Your task to perform on an android device: delete a single message in the gmail app Image 0: 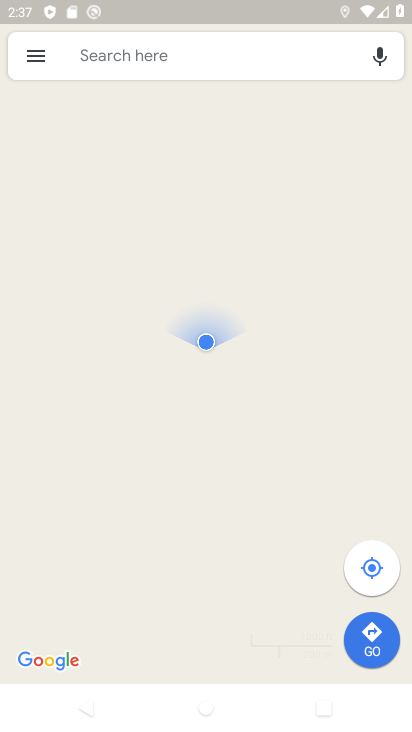
Step 0: press home button
Your task to perform on an android device: delete a single message in the gmail app Image 1: 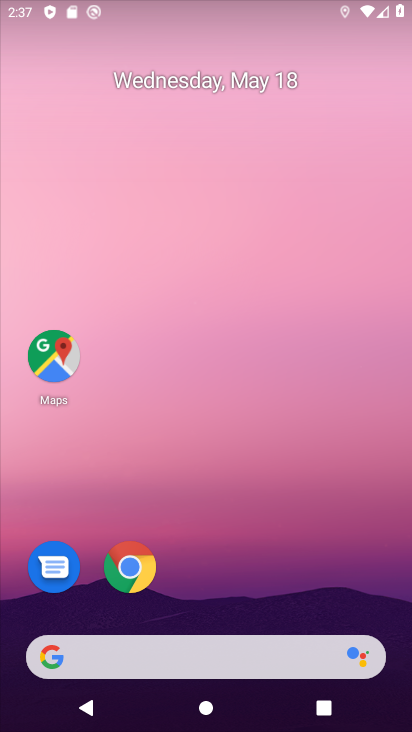
Step 1: drag from (256, 540) to (249, 110)
Your task to perform on an android device: delete a single message in the gmail app Image 2: 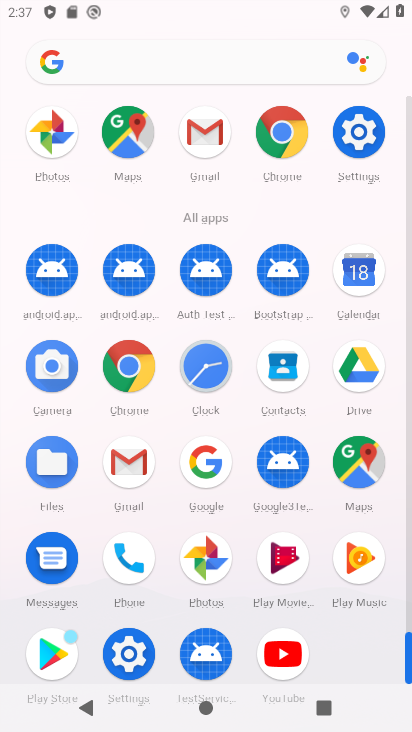
Step 2: click (116, 480)
Your task to perform on an android device: delete a single message in the gmail app Image 3: 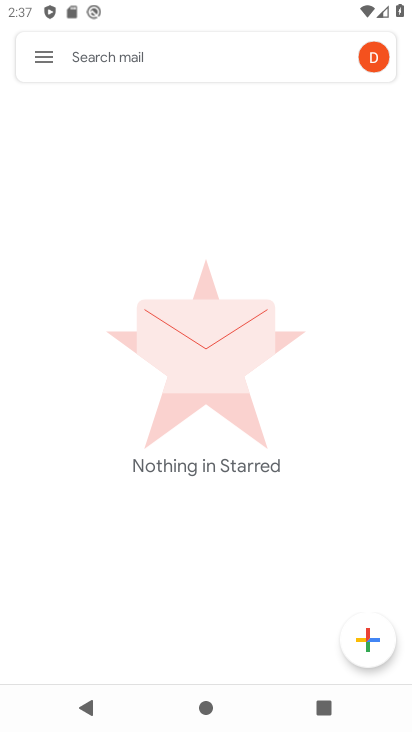
Step 3: click (41, 50)
Your task to perform on an android device: delete a single message in the gmail app Image 4: 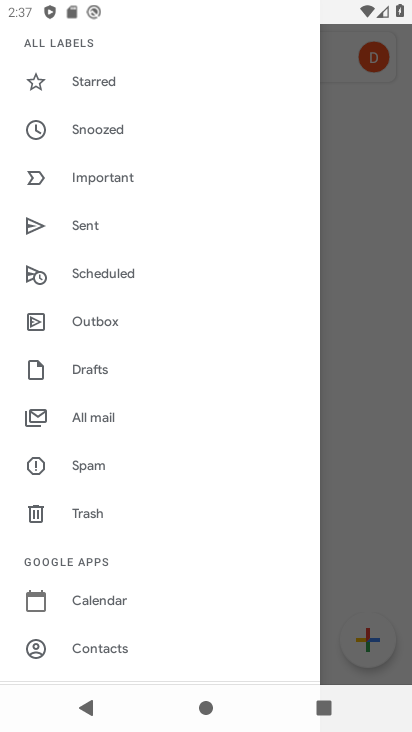
Step 4: click (117, 421)
Your task to perform on an android device: delete a single message in the gmail app Image 5: 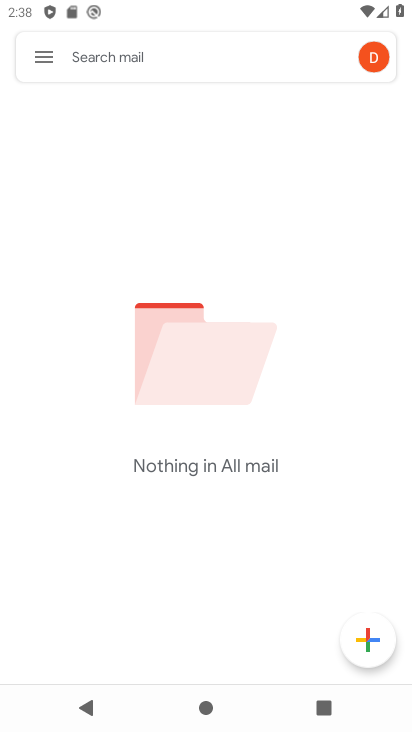
Step 5: task complete